Your task to perform on an android device: turn pop-ups off in chrome Image 0: 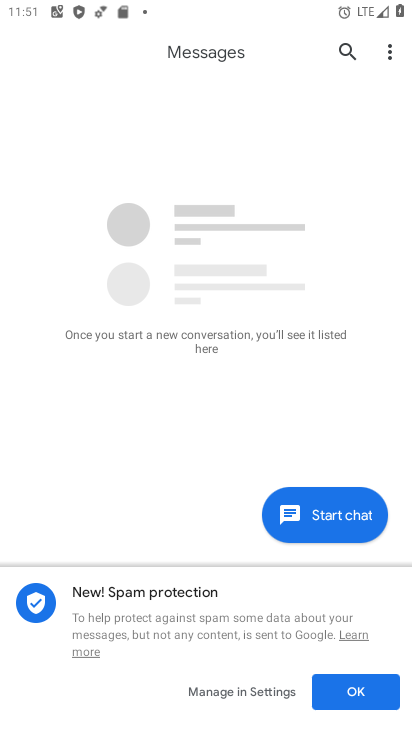
Step 0: press home button
Your task to perform on an android device: turn pop-ups off in chrome Image 1: 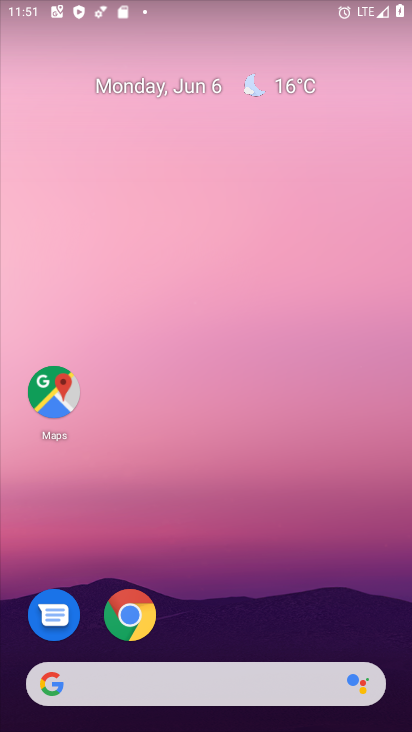
Step 1: click (125, 605)
Your task to perform on an android device: turn pop-ups off in chrome Image 2: 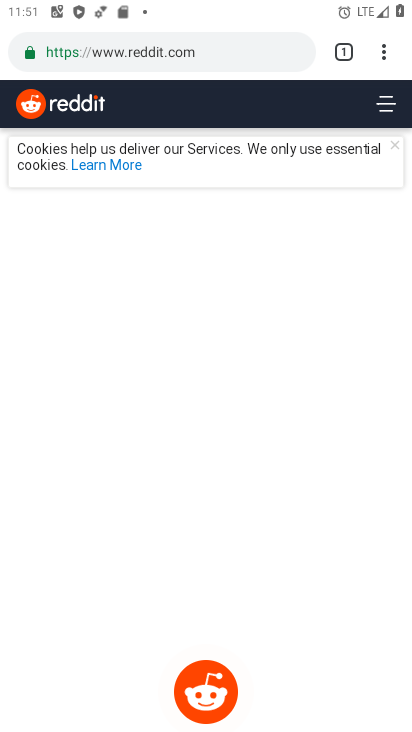
Step 2: click (379, 56)
Your task to perform on an android device: turn pop-ups off in chrome Image 3: 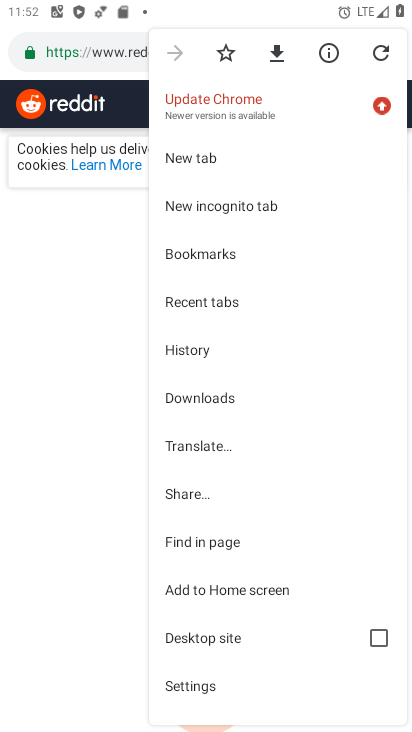
Step 3: click (233, 683)
Your task to perform on an android device: turn pop-ups off in chrome Image 4: 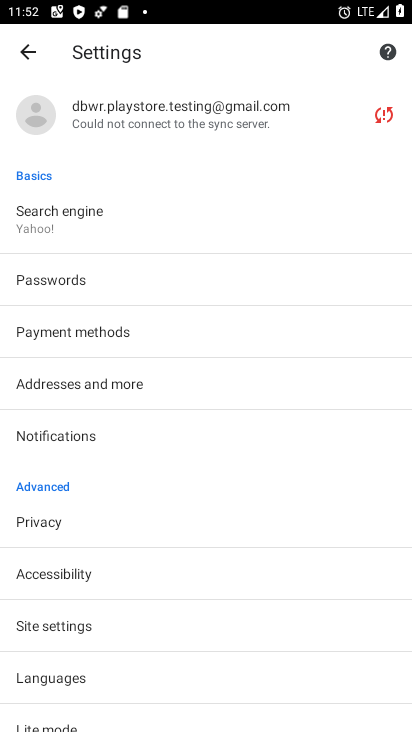
Step 4: click (109, 622)
Your task to perform on an android device: turn pop-ups off in chrome Image 5: 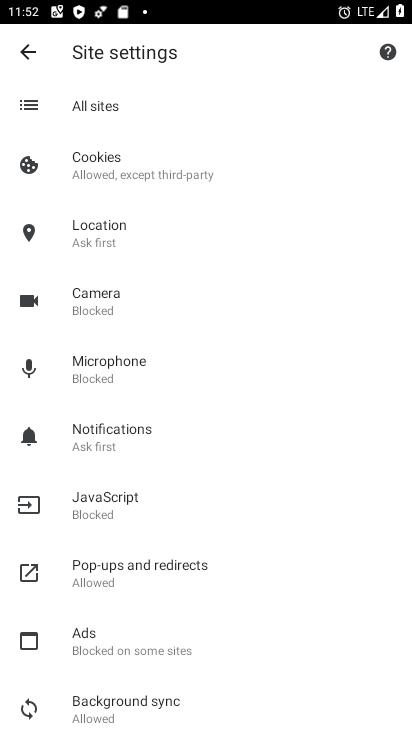
Step 5: click (149, 573)
Your task to perform on an android device: turn pop-ups off in chrome Image 6: 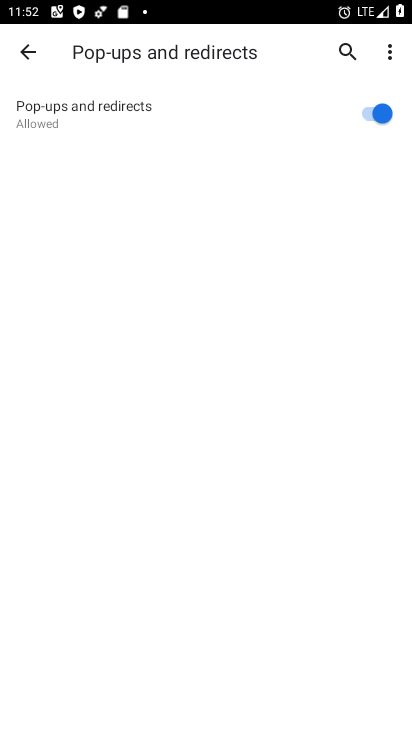
Step 6: click (372, 104)
Your task to perform on an android device: turn pop-ups off in chrome Image 7: 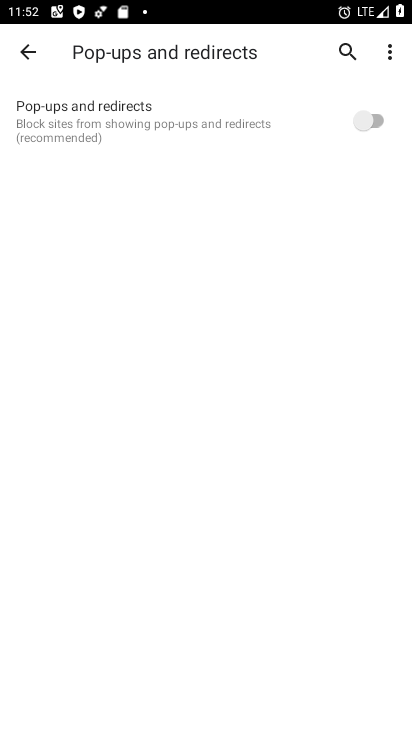
Step 7: task complete